Your task to perform on an android device: Show me popular videos on Youtube Image 0: 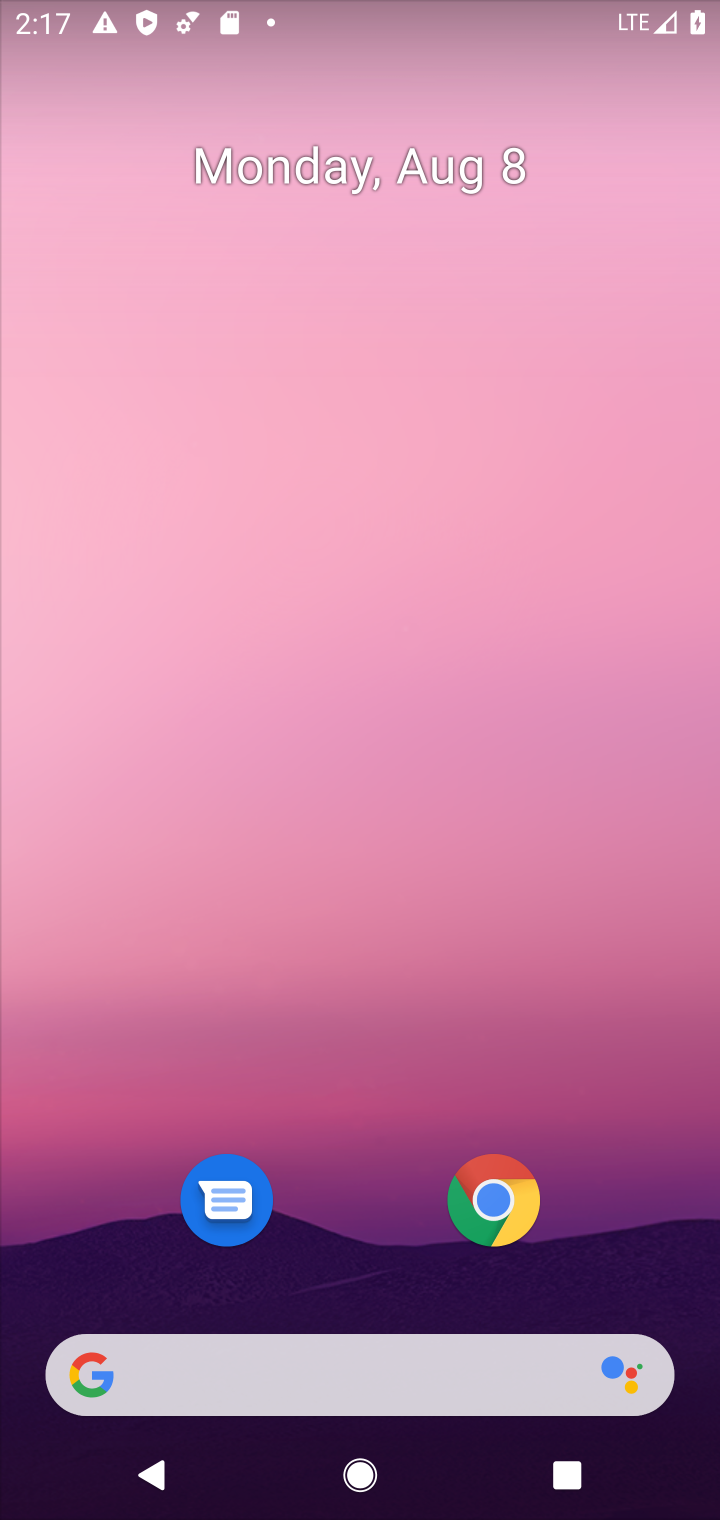
Step 0: drag from (404, 1191) to (407, 41)
Your task to perform on an android device: Show me popular videos on Youtube Image 1: 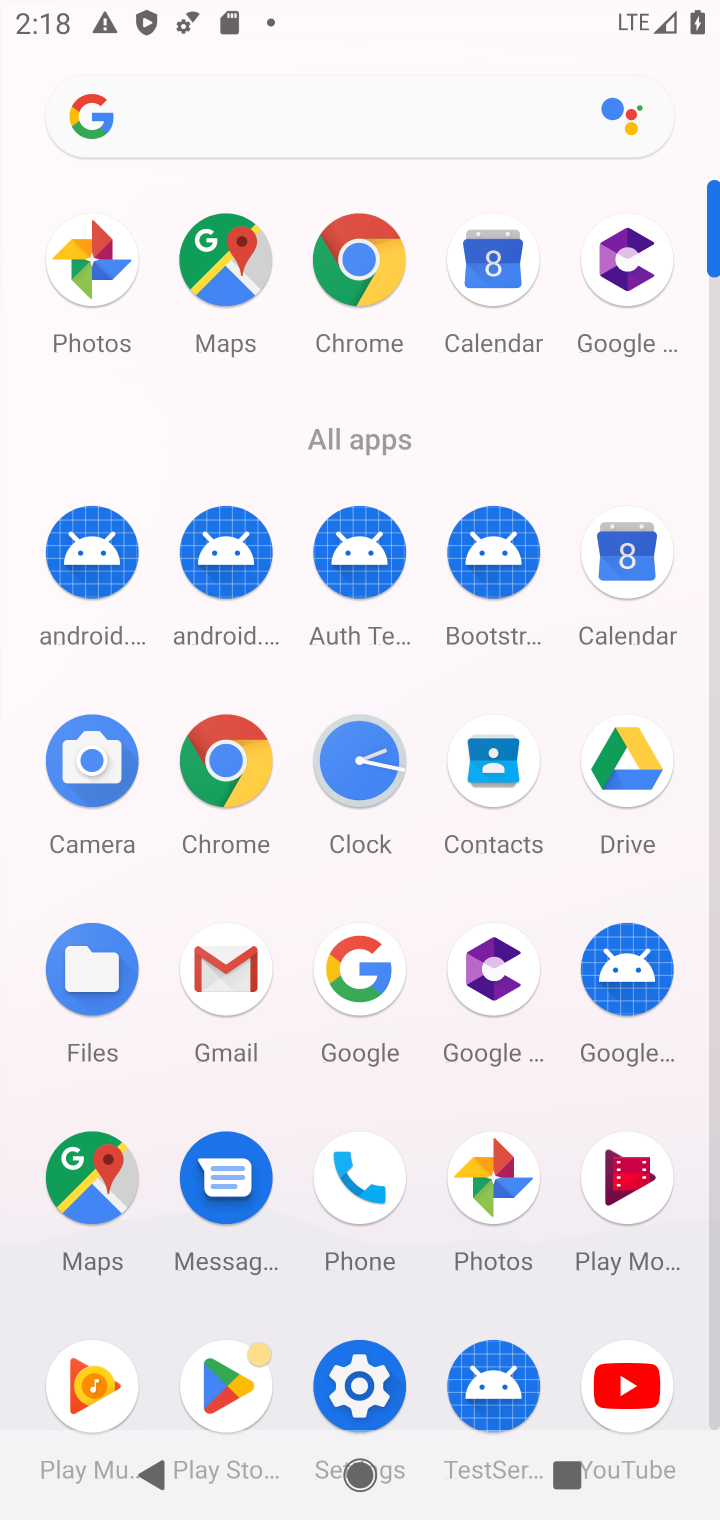
Step 1: click (598, 1397)
Your task to perform on an android device: Show me popular videos on Youtube Image 2: 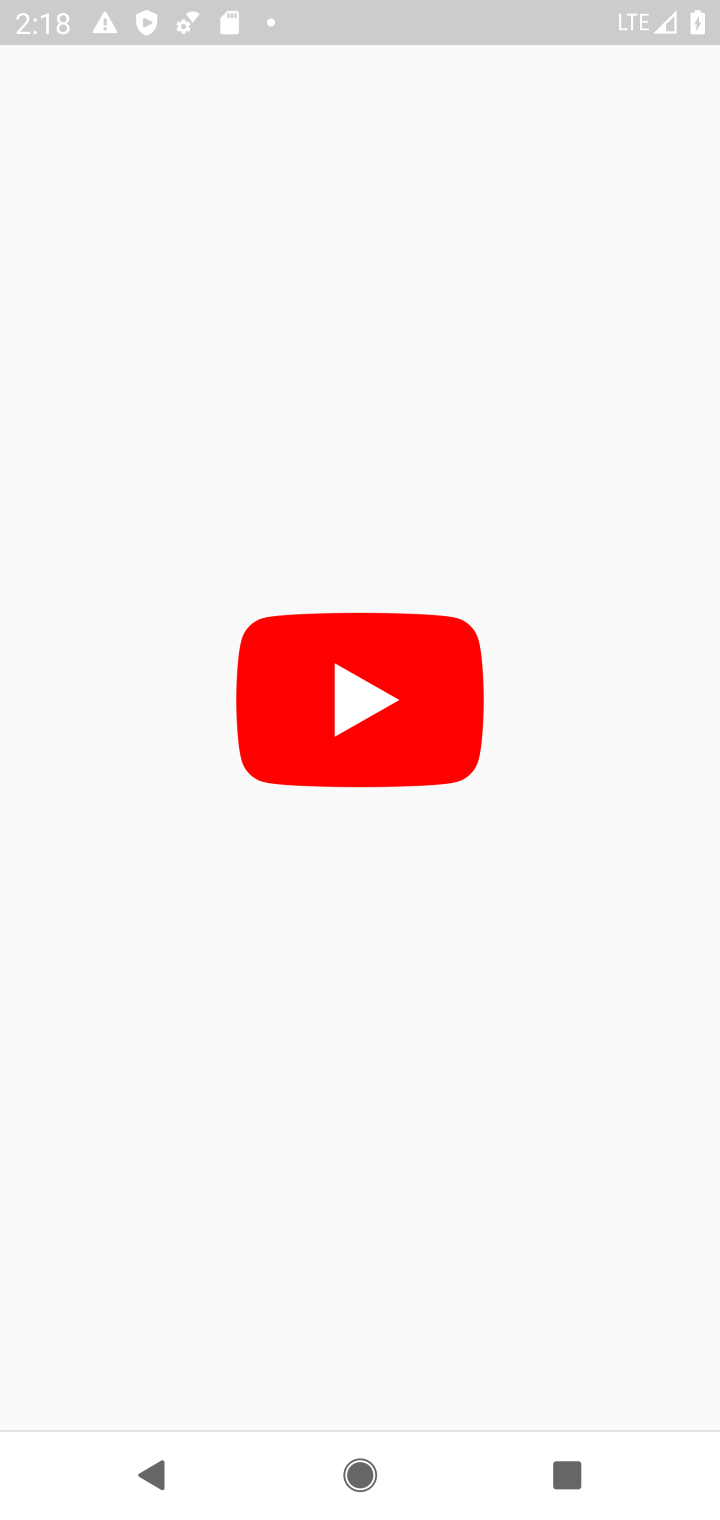
Step 2: click (630, 1387)
Your task to perform on an android device: Show me popular videos on Youtube Image 3: 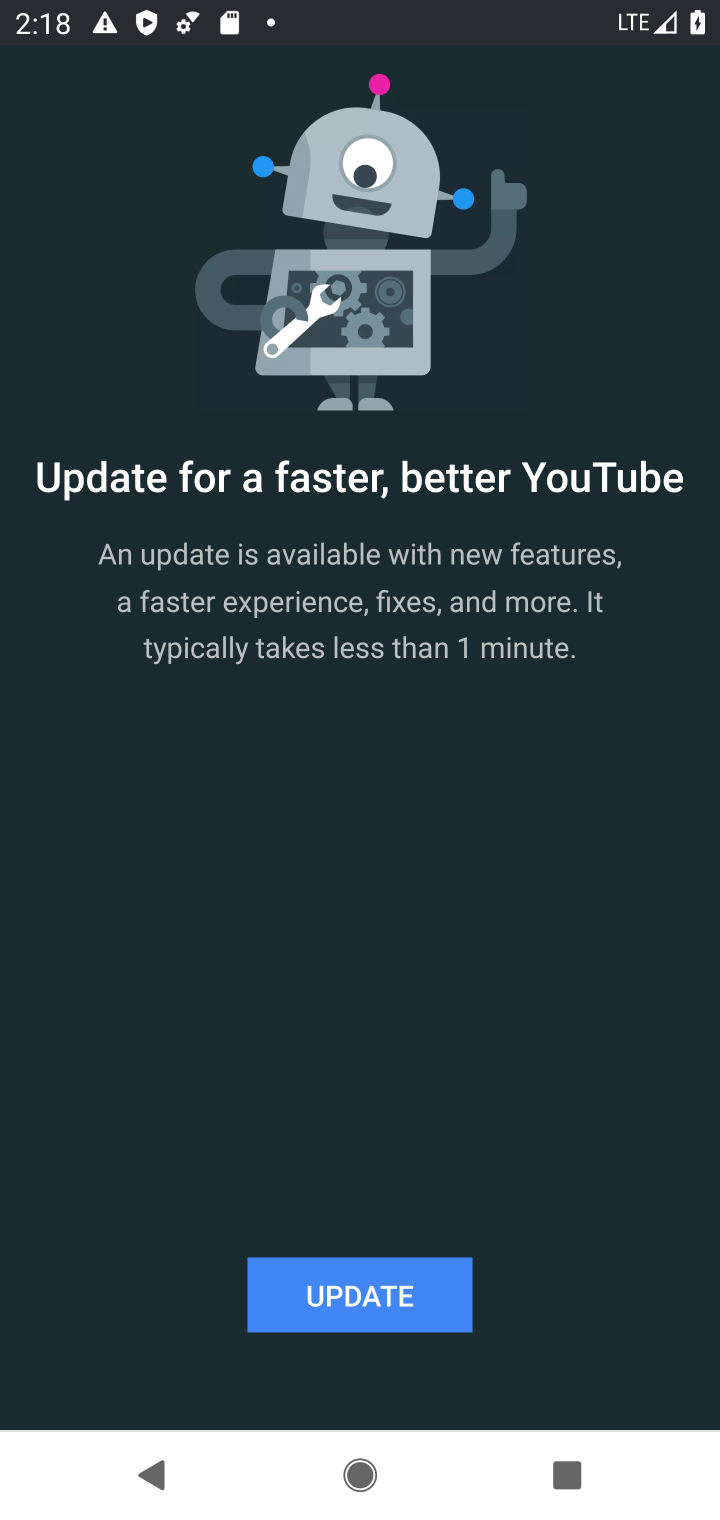
Step 3: press back button
Your task to perform on an android device: Show me popular videos on Youtube Image 4: 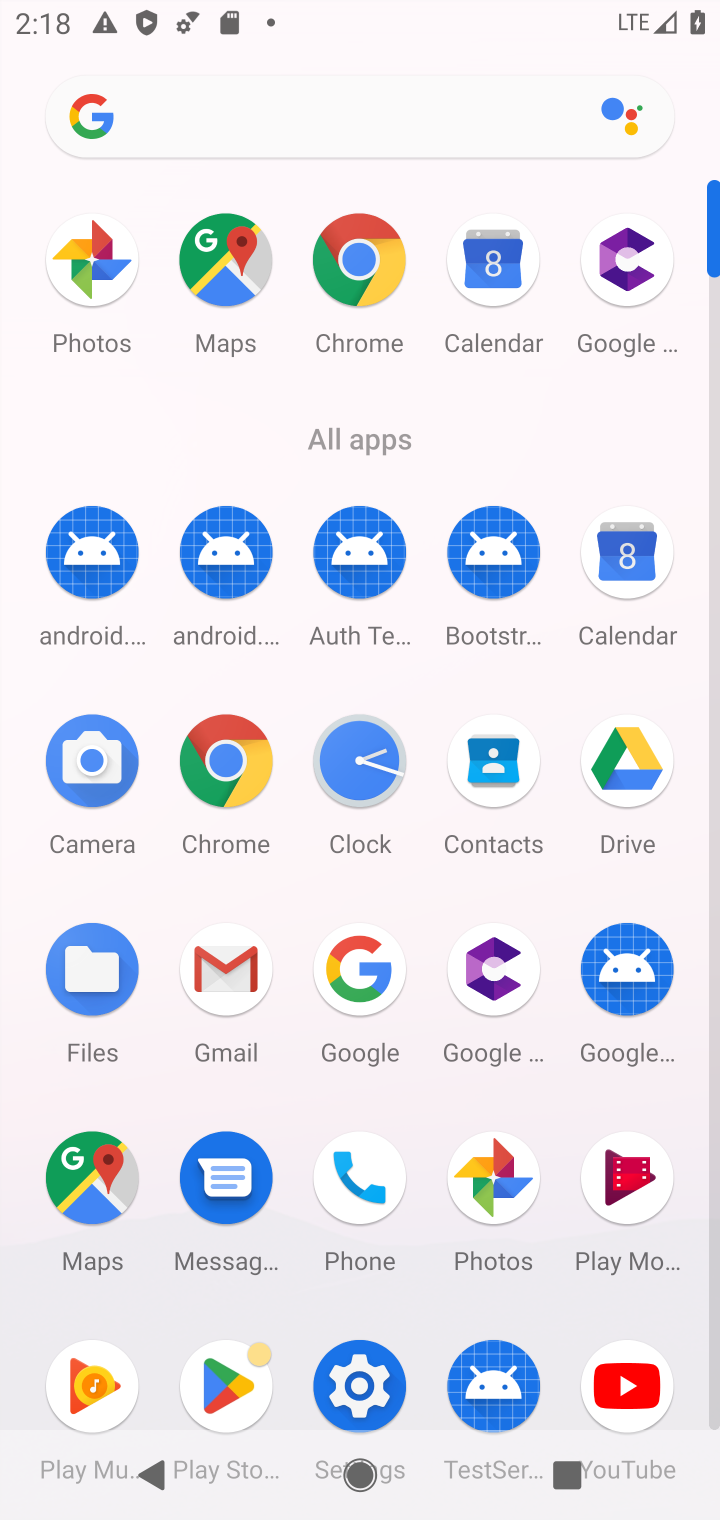
Step 4: click (653, 1373)
Your task to perform on an android device: Show me popular videos on Youtube Image 5: 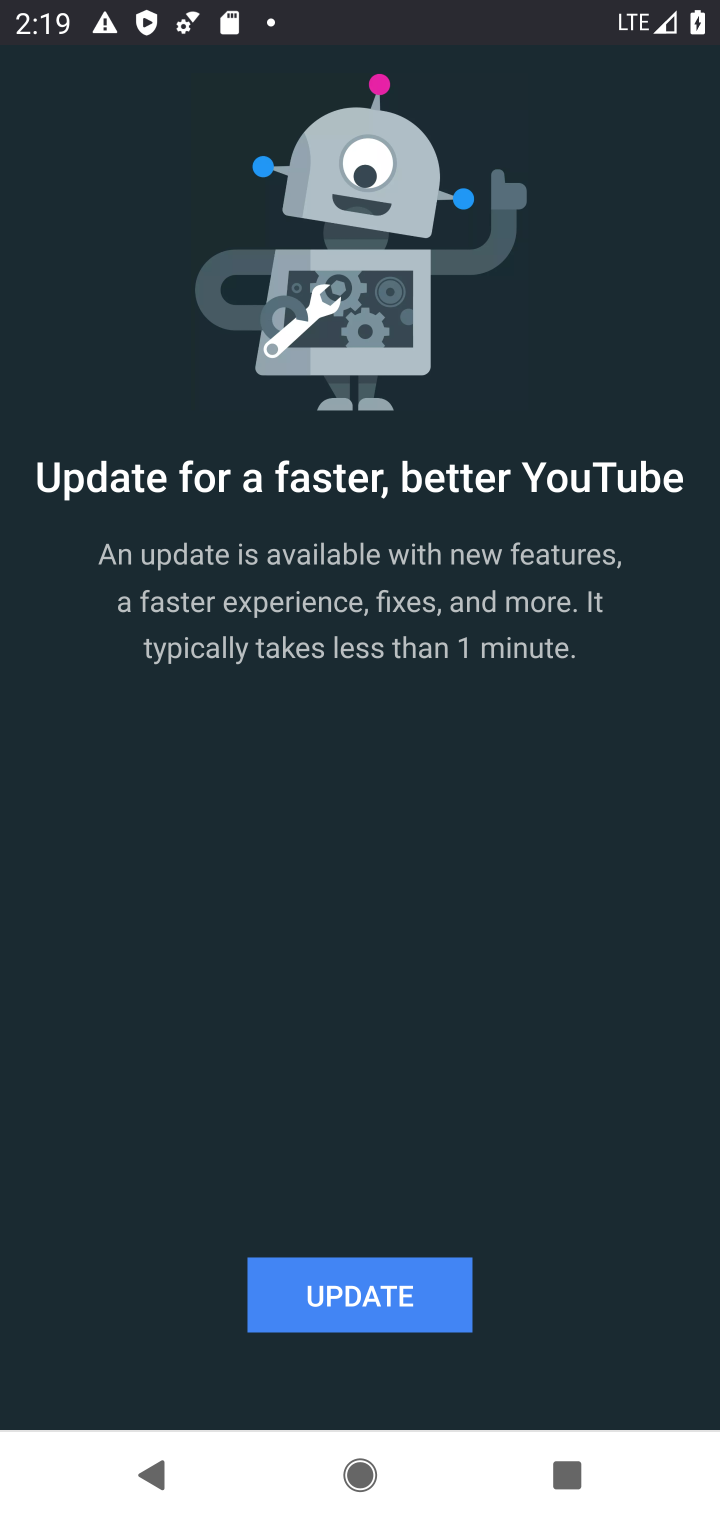
Step 5: task complete